Your task to perform on an android device: Open accessibility settings Image 0: 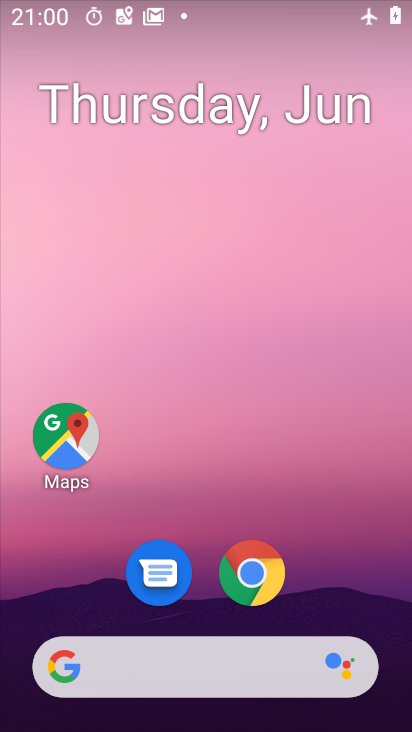
Step 0: click (249, 248)
Your task to perform on an android device: Open accessibility settings Image 1: 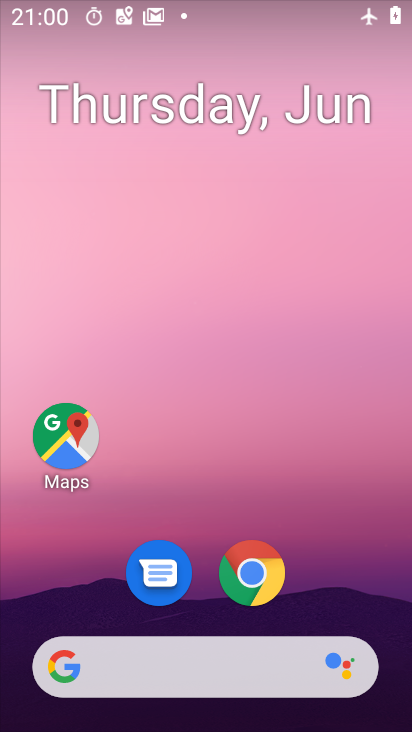
Step 1: drag from (248, 612) to (273, 245)
Your task to perform on an android device: Open accessibility settings Image 2: 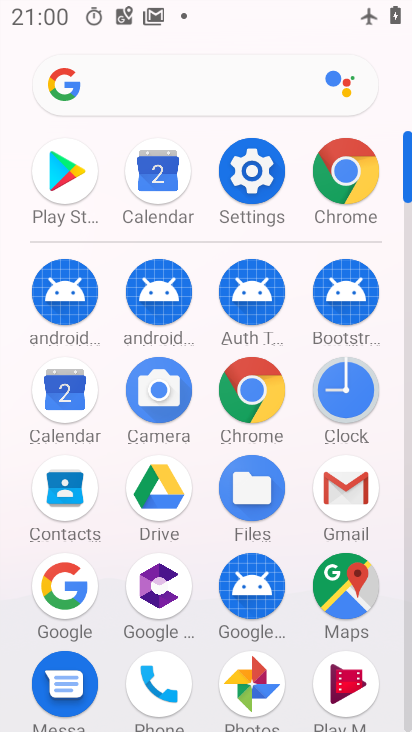
Step 2: click (237, 172)
Your task to perform on an android device: Open accessibility settings Image 3: 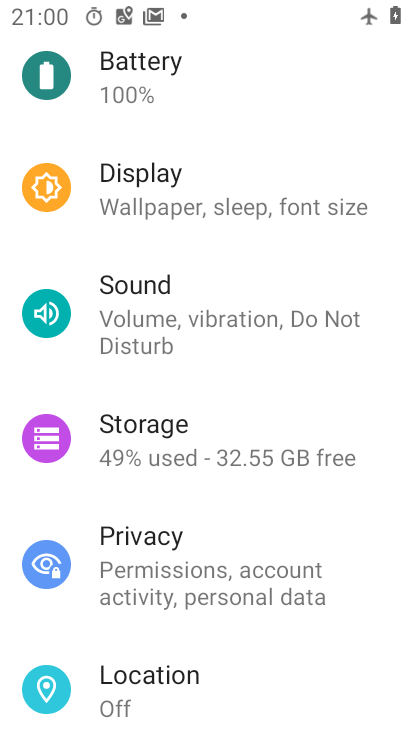
Step 3: drag from (147, 595) to (266, 115)
Your task to perform on an android device: Open accessibility settings Image 4: 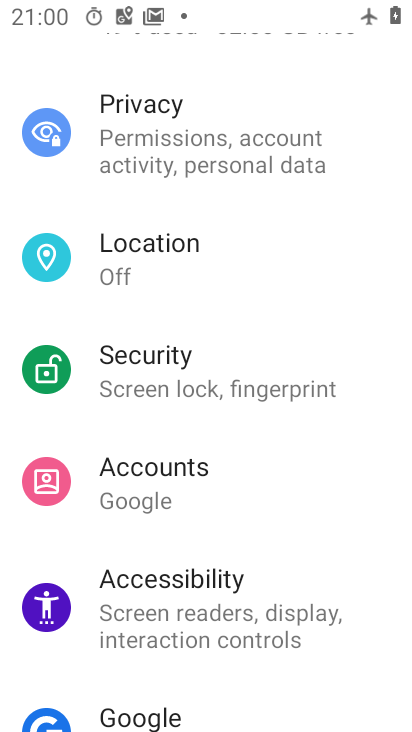
Step 4: drag from (211, 583) to (249, 249)
Your task to perform on an android device: Open accessibility settings Image 5: 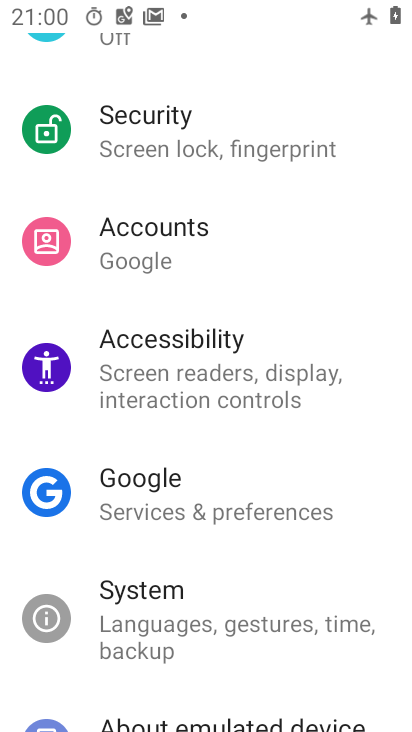
Step 5: click (216, 363)
Your task to perform on an android device: Open accessibility settings Image 6: 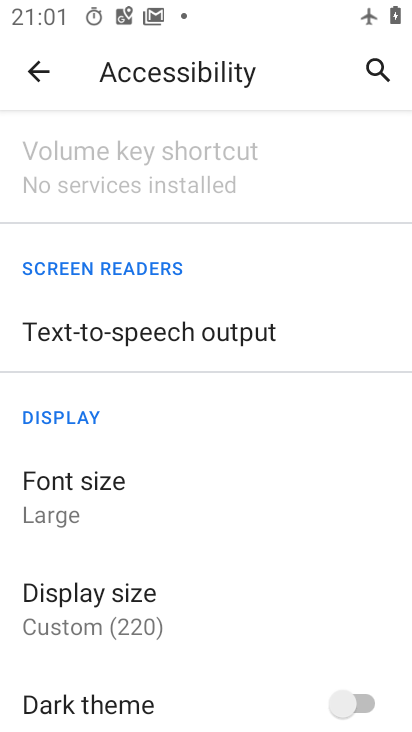
Step 6: task complete